Your task to perform on an android device: manage bookmarks in the chrome app Image 0: 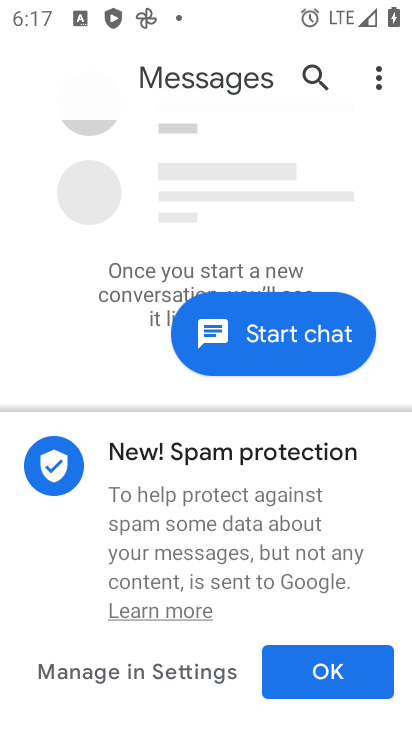
Step 0: press home button
Your task to perform on an android device: manage bookmarks in the chrome app Image 1: 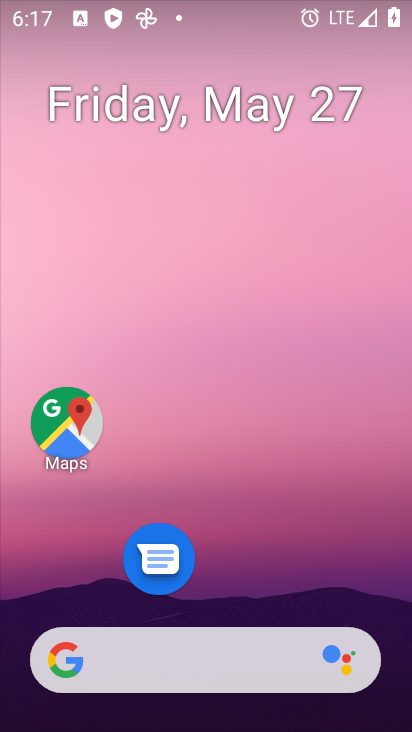
Step 1: drag from (156, 661) to (230, 64)
Your task to perform on an android device: manage bookmarks in the chrome app Image 2: 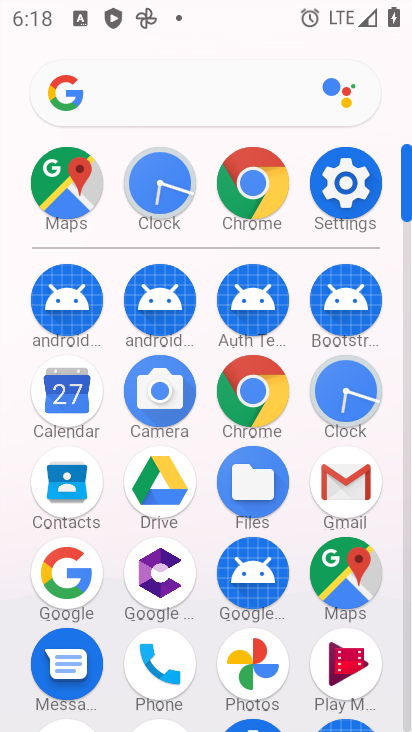
Step 2: click (253, 402)
Your task to perform on an android device: manage bookmarks in the chrome app Image 3: 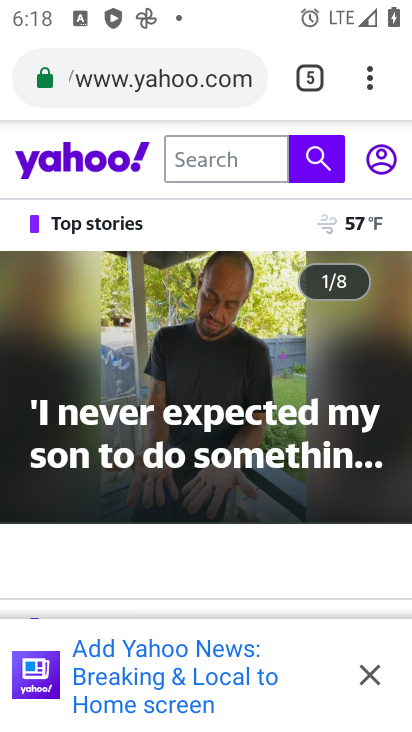
Step 3: click (373, 70)
Your task to perform on an android device: manage bookmarks in the chrome app Image 4: 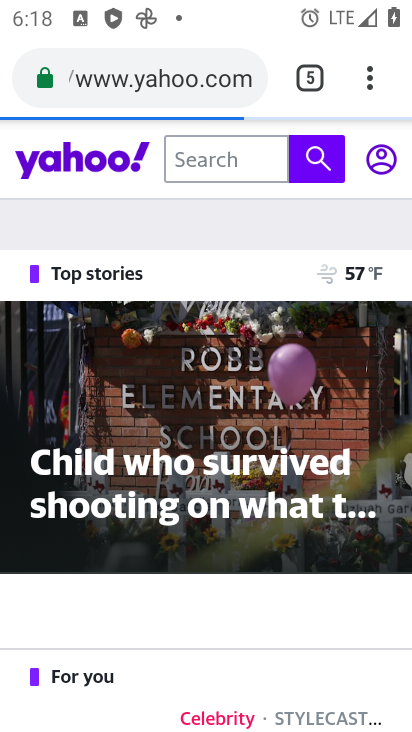
Step 4: task complete